Your task to perform on an android device: Open Google Chrome and open the bookmarks view Image 0: 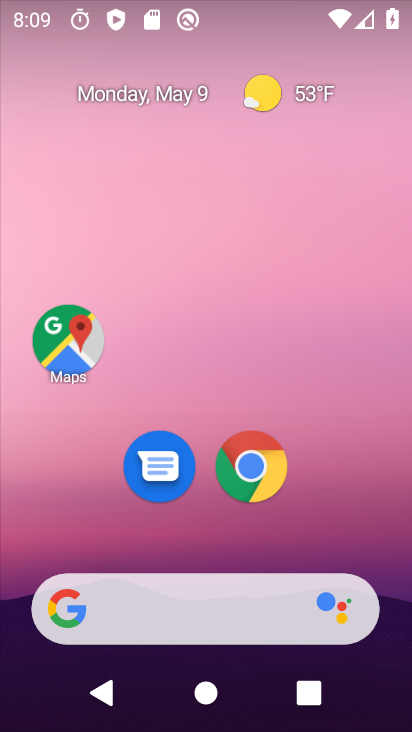
Step 0: click (252, 464)
Your task to perform on an android device: Open Google Chrome and open the bookmarks view Image 1: 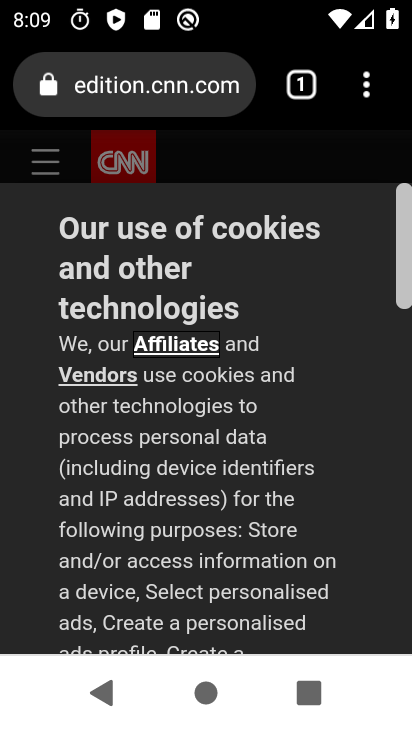
Step 1: click (370, 81)
Your task to perform on an android device: Open Google Chrome and open the bookmarks view Image 2: 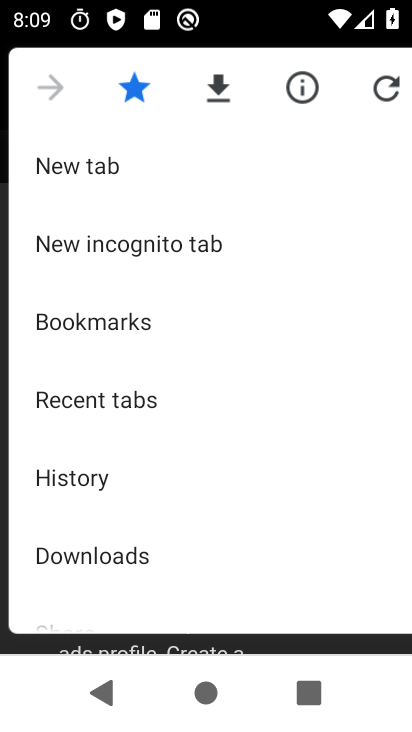
Step 2: click (141, 327)
Your task to perform on an android device: Open Google Chrome and open the bookmarks view Image 3: 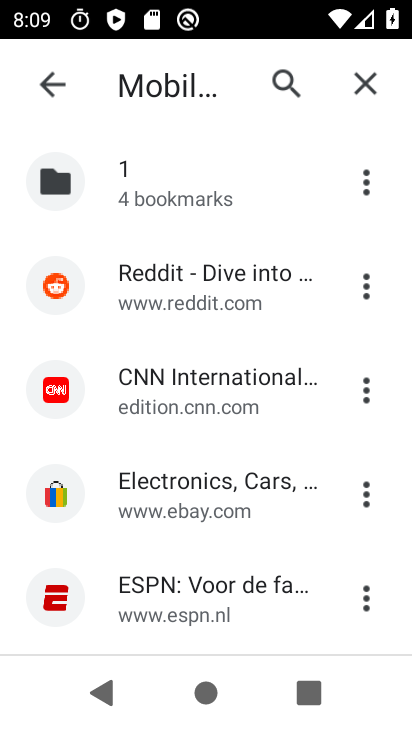
Step 3: task complete